Your task to perform on an android device: toggle notifications settings in the gmail app Image 0: 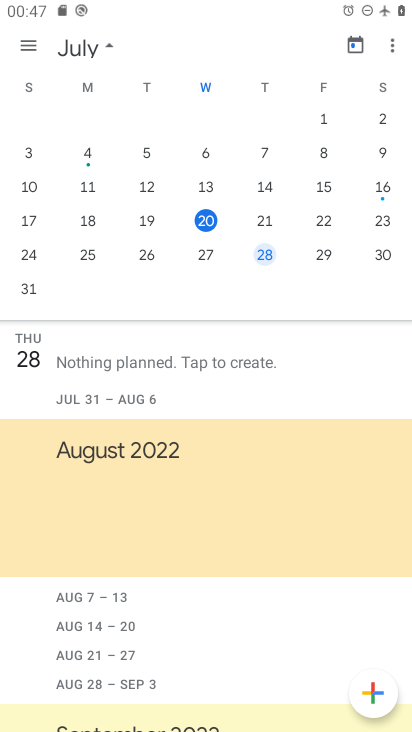
Step 0: press home button
Your task to perform on an android device: toggle notifications settings in the gmail app Image 1: 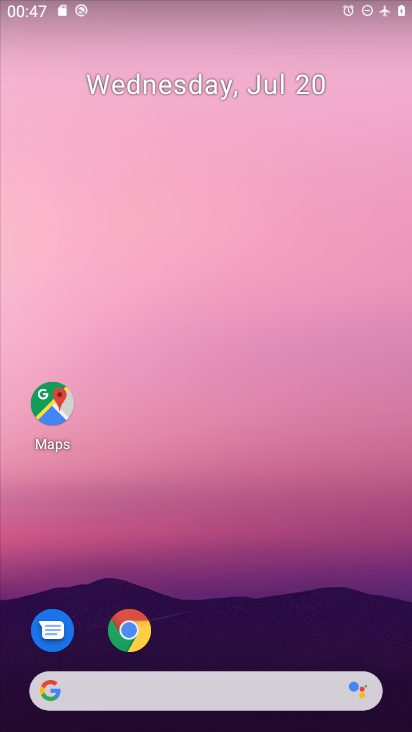
Step 1: drag from (175, 644) to (219, 328)
Your task to perform on an android device: toggle notifications settings in the gmail app Image 2: 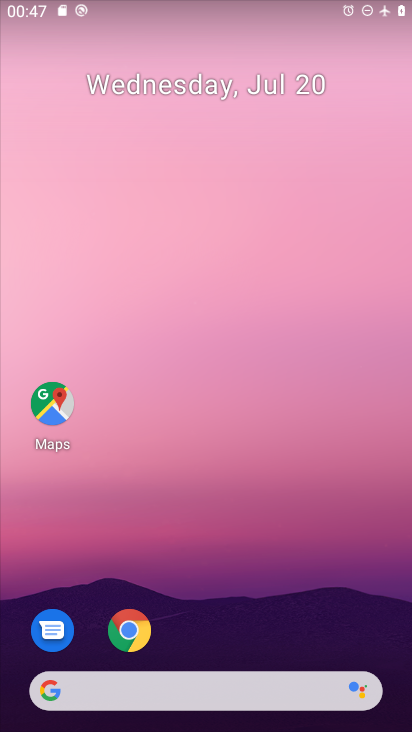
Step 2: drag from (213, 635) to (239, 170)
Your task to perform on an android device: toggle notifications settings in the gmail app Image 3: 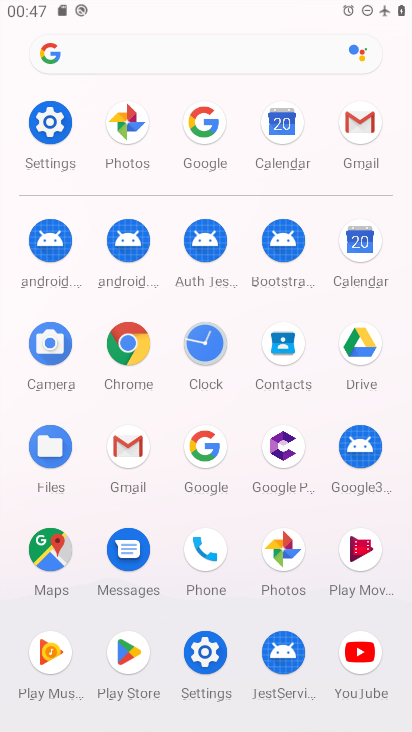
Step 3: click (353, 128)
Your task to perform on an android device: toggle notifications settings in the gmail app Image 4: 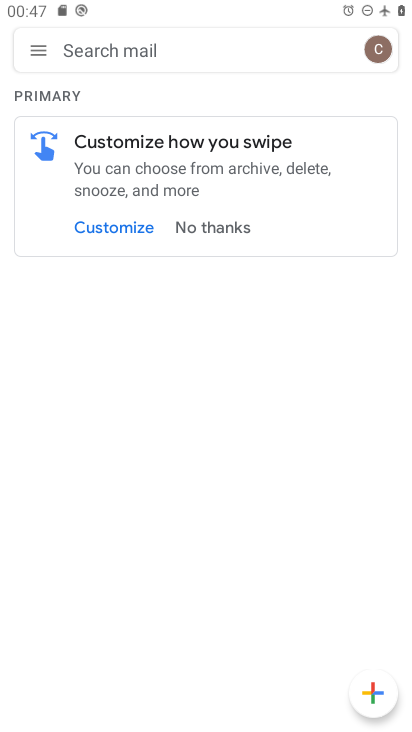
Step 4: click (34, 55)
Your task to perform on an android device: toggle notifications settings in the gmail app Image 5: 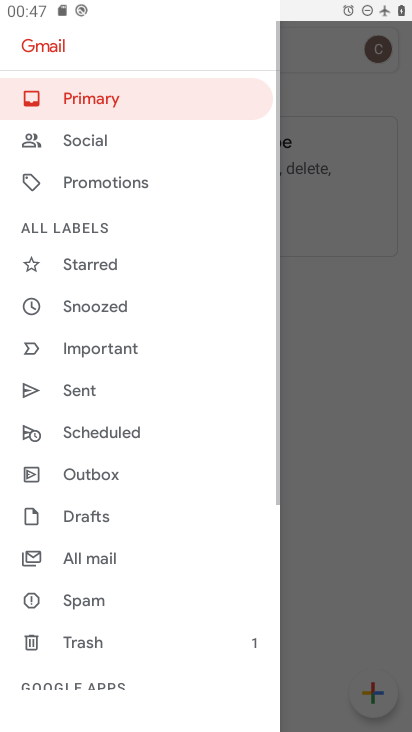
Step 5: drag from (120, 611) to (147, 301)
Your task to perform on an android device: toggle notifications settings in the gmail app Image 6: 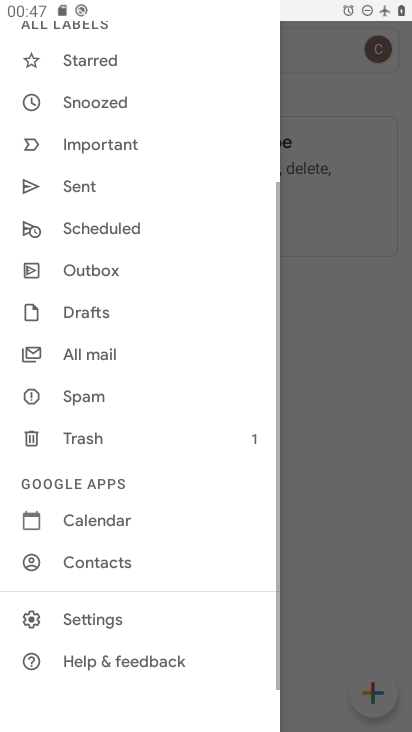
Step 6: click (125, 610)
Your task to perform on an android device: toggle notifications settings in the gmail app Image 7: 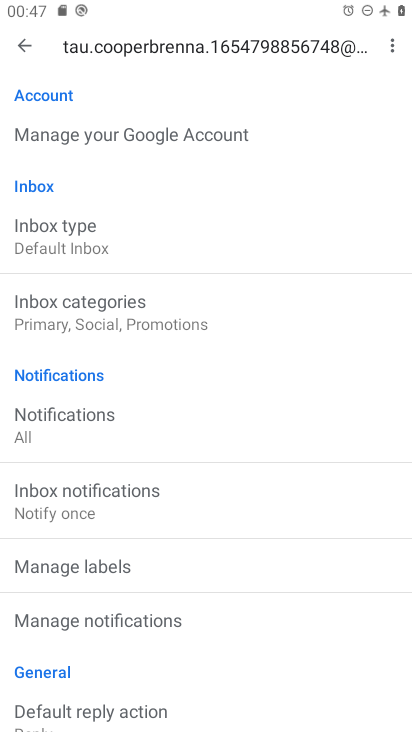
Step 7: click (135, 617)
Your task to perform on an android device: toggle notifications settings in the gmail app Image 8: 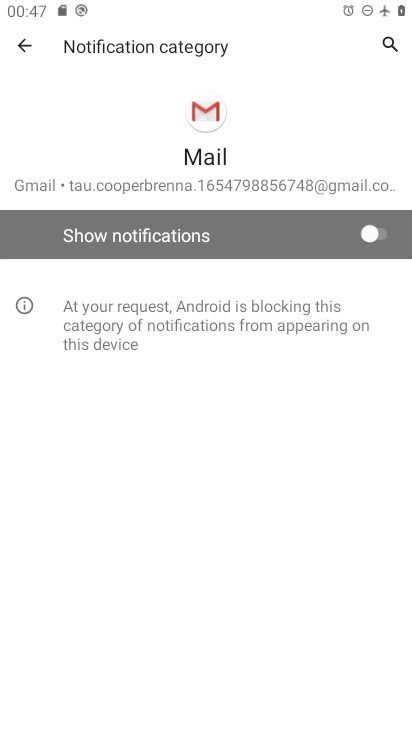
Step 8: click (375, 233)
Your task to perform on an android device: toggle notifications settings in the gmail app Image 9: 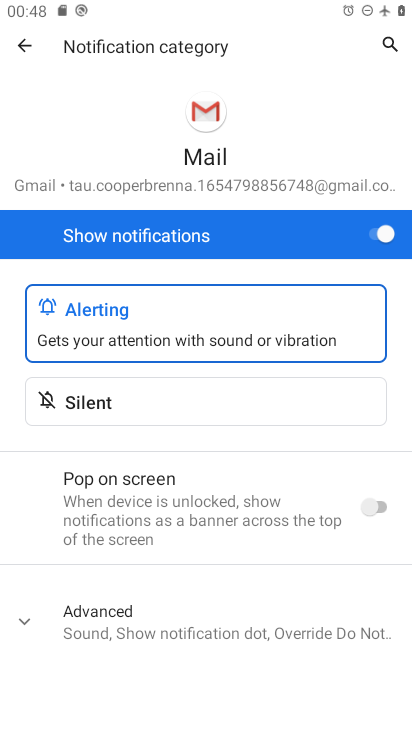
Step 9: task complete